Your task to perform on an android device: Do I have any events tomorrow? Image 0: 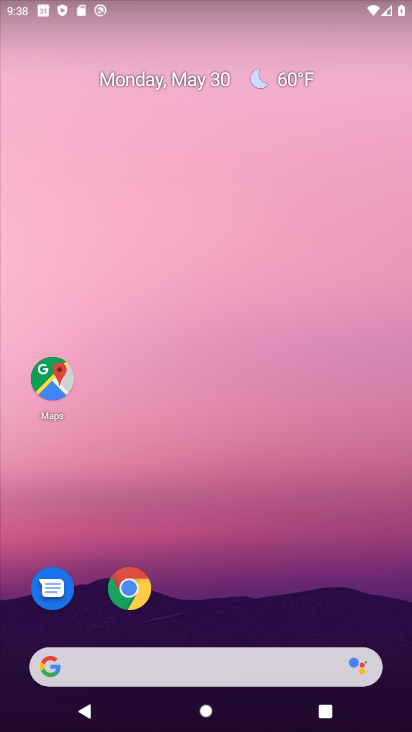
Step 0: drag from (199, 520) to (223, 0)
Your task to perform on an android device: Do I have any events tomorrow? Image 1: 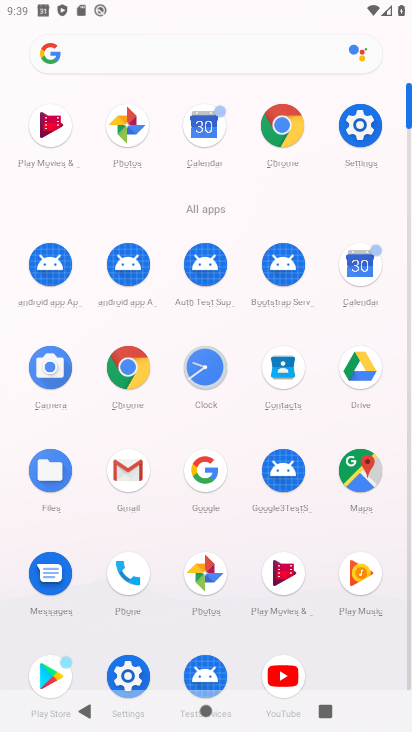
Step 1: click (357, 290)
Your task to perform on an android device: Do I have any events tomorrow? Image 2: 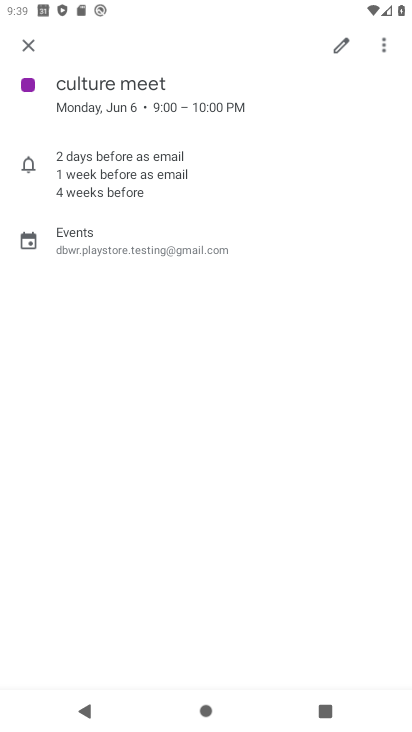
Step 2: click (31, 39)
Your task to perform on an android device: Do I have any events tomorrow? Image 3: 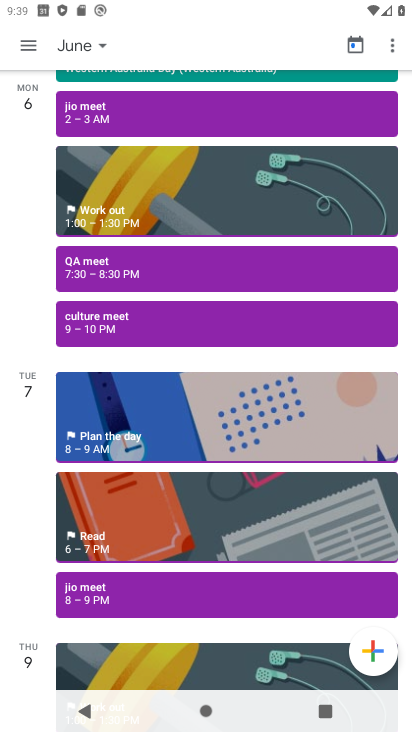
Step 3: drag from (111, 137) to (100, 563)
Your task to perform on an android device: Do I have any events tomorrow? Image 4: 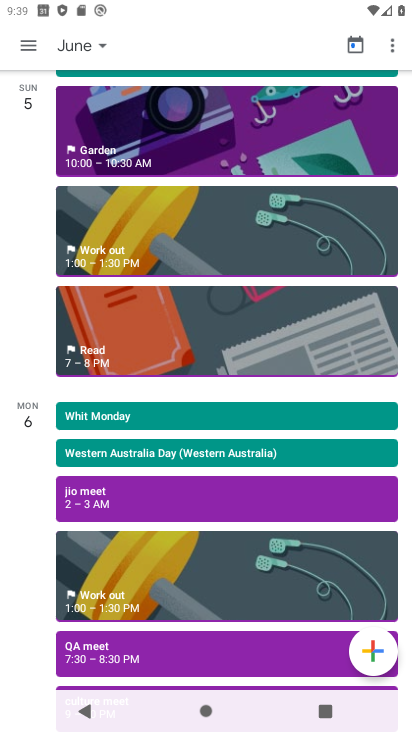
Step 4: drag from (111, 124) to (146, 713)
Your task to perform on an android device: Do I have any events tomorrow? Image 5: 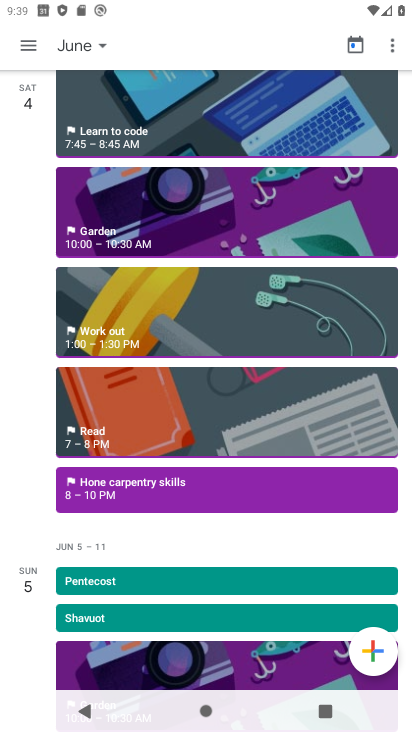
Step 5: drag from (189, 209) to (158, 698)
Your task to perform on an android device: Do I have any events tomorrow? Image 6: 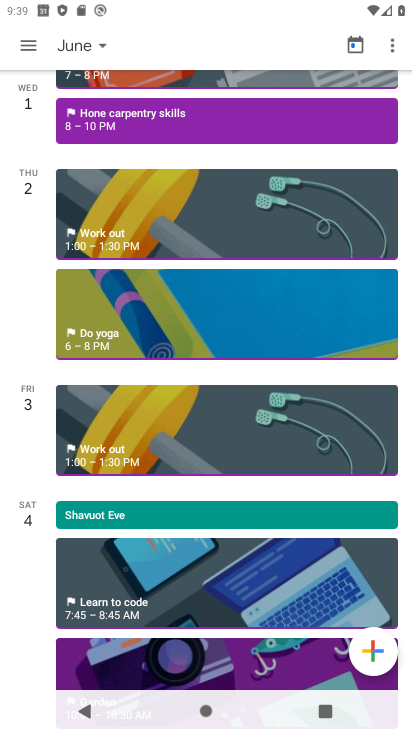
Step 6: drag from (169, 110) to (160, 430)
Your task to perform on an android device: Do I have any events tomorrow? Image 7: 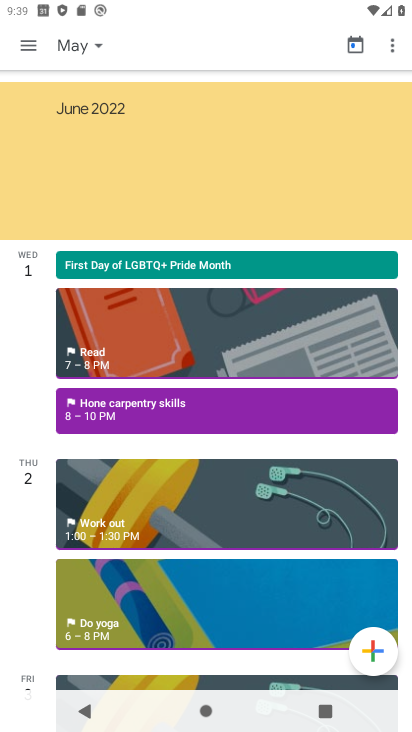
Step 7: click (32, 41)
Your task to perform on an android device: Do I have any events tomorrow? Image 8: 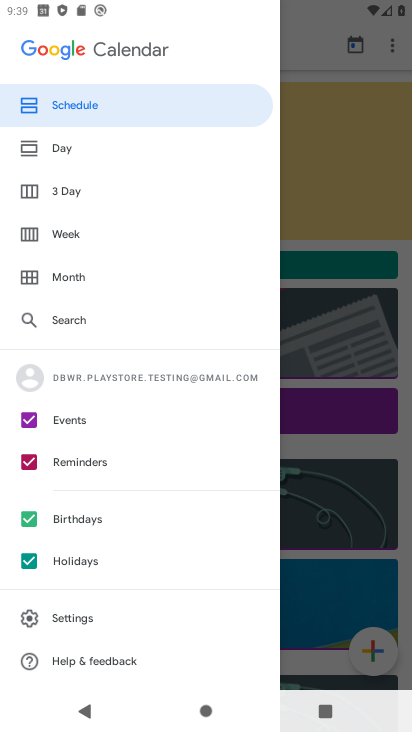
Step 8: click (65, 450)
Your task to perform on an android device: Do I have any events tomorrow? Image 9: 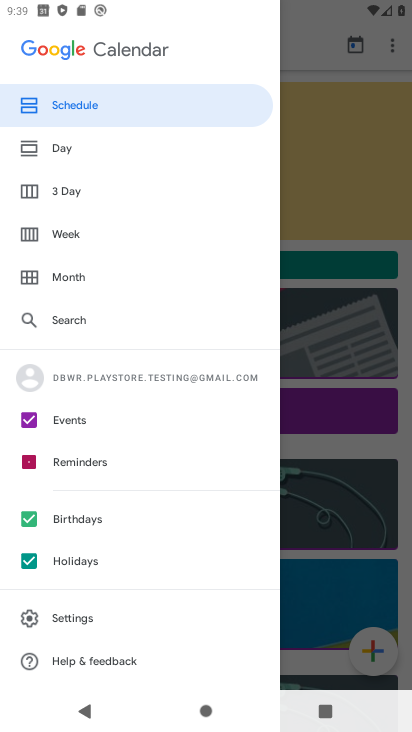
Step 9: click (62, 507)
Your task to perform on an android device: Do I have any events tomorrow? Image 10: 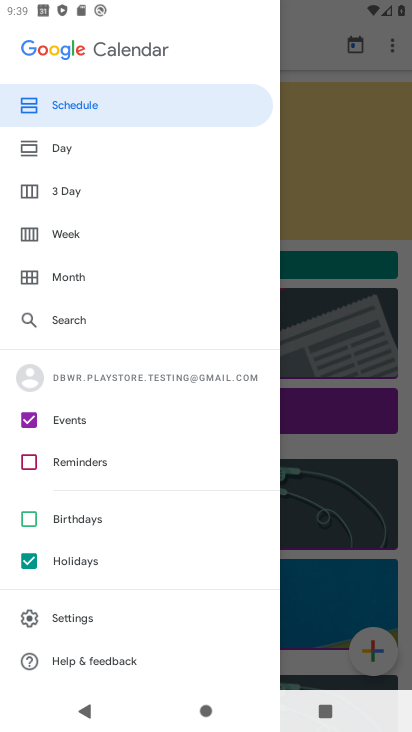
Step 10: click (59, 586)
Your task to perform on an android device: Do I have any events tomorrow? Image 11: 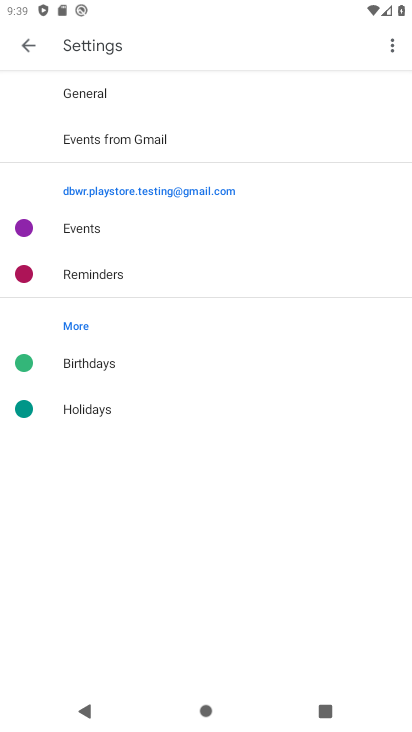
Step 11: click (19, 41)
Your task to perform on an android device: Do I have any events tomorrow? Image 12: 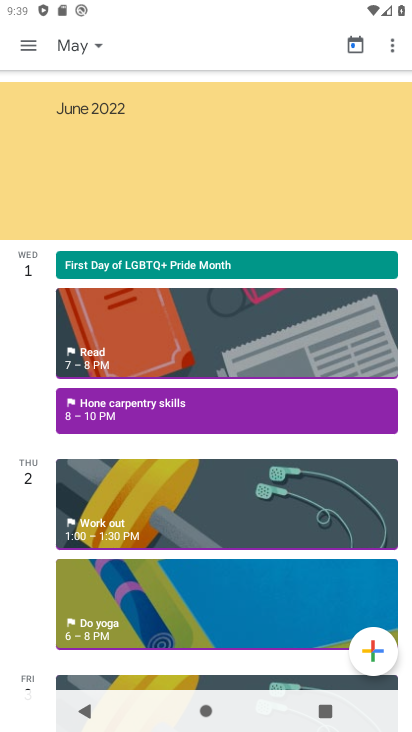
Step 12: click (23, 44)
Your task to perform on an android device: Do I have any events tomorrow? Image 13: 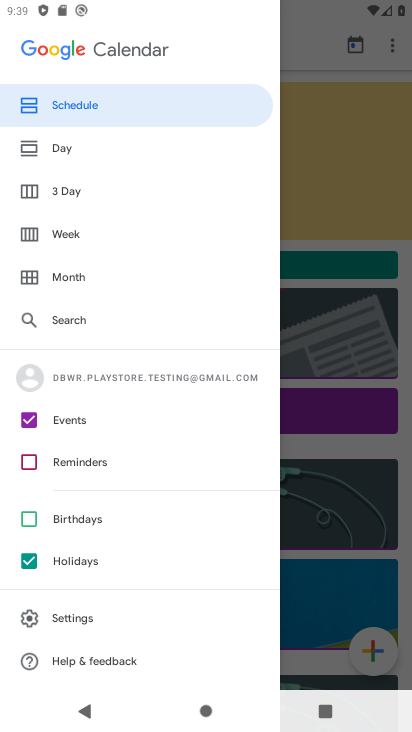
Step 13: click (45, 543)
Your task to perform on an android device: Do I have any events tomorrow? Image 14: 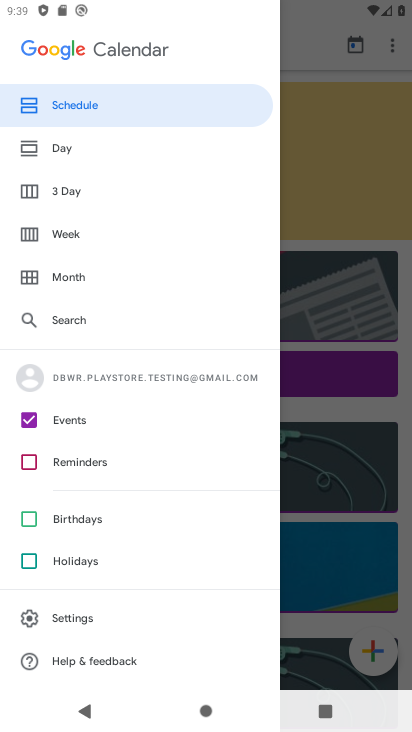
Step 14: click (80, 186)
Your task to perform on an android device: Do I have any events tomorrow? Image 15: 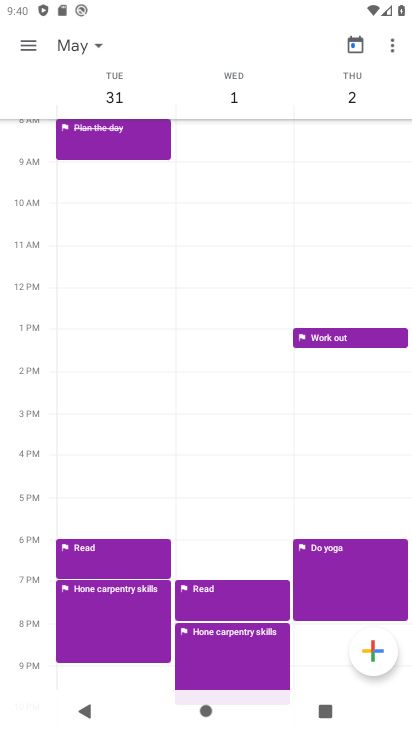
Step 15: task complete